Your task to perform on an android device: Go to Android settings Image 0: 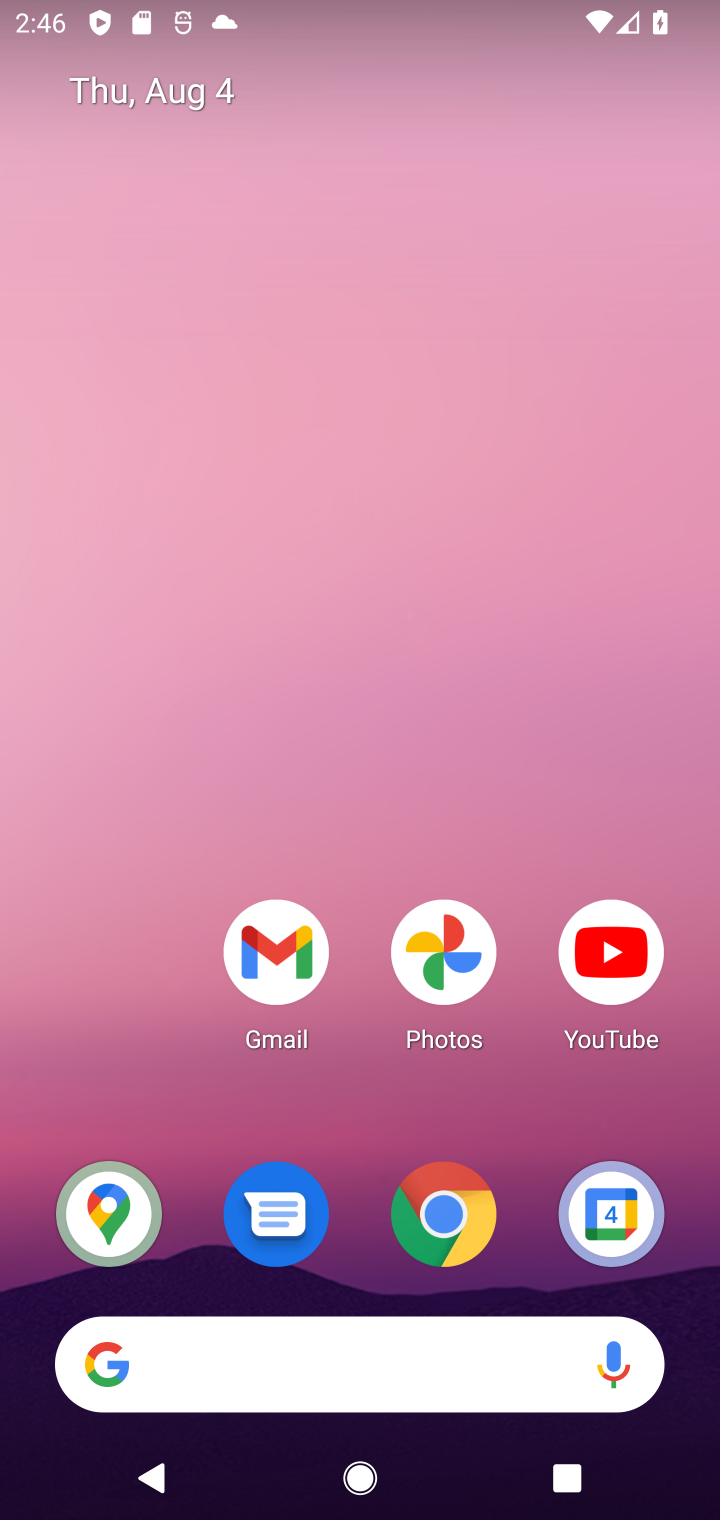
Step 0: drag from (196, 1085) to (98, 120)
Your task to perform on an android device: Go to Android settings Image 1: 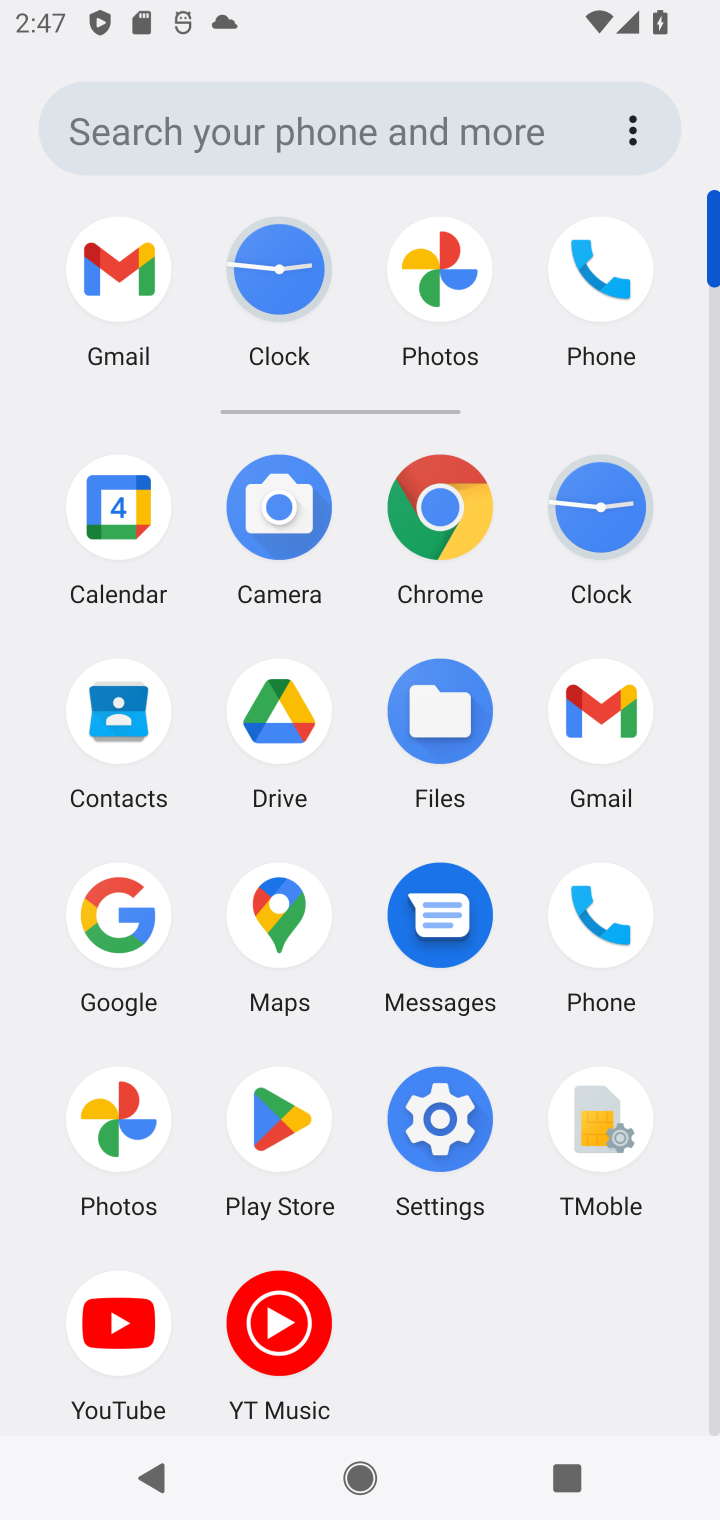
Step 1: click (432, 1138)
Your task to perform on an android device: Go to Android settings Image 2: 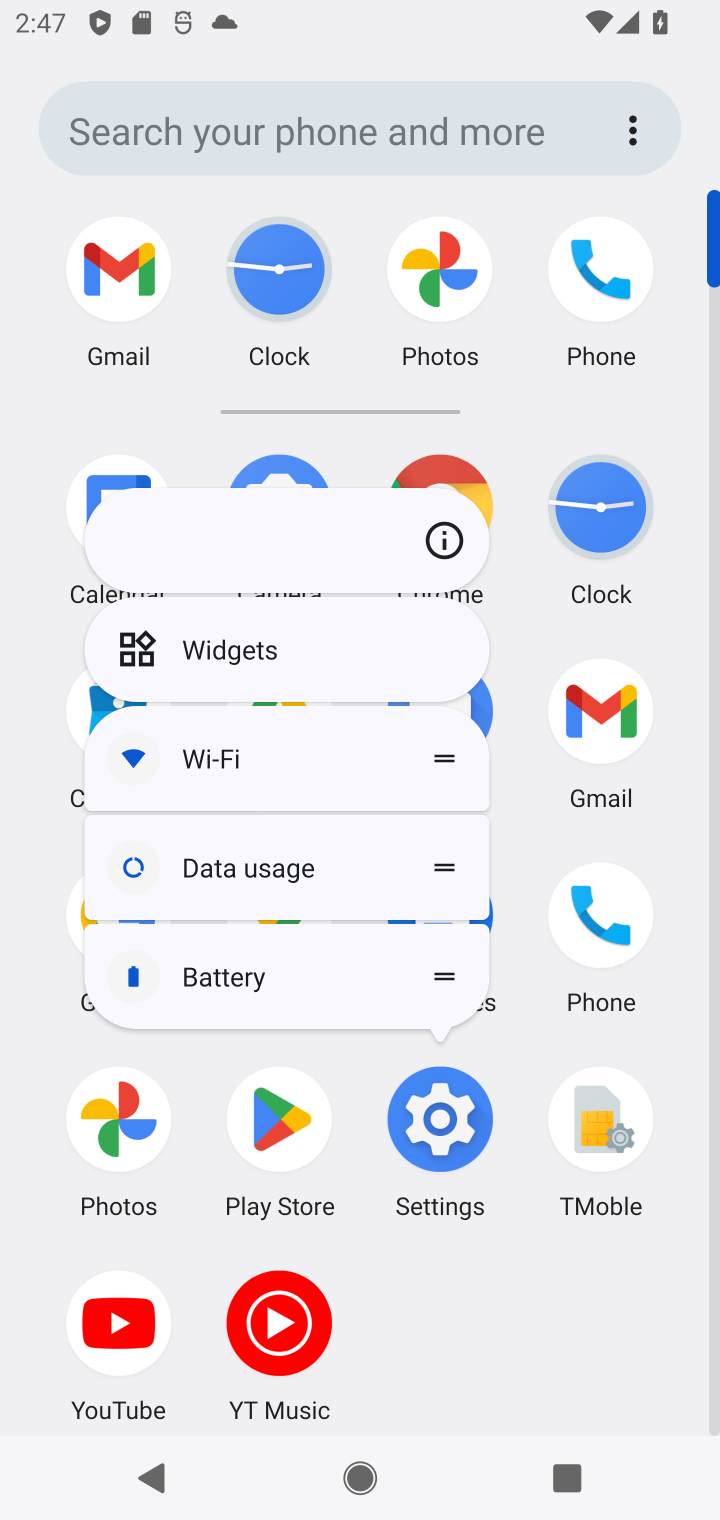
Step 2: click (432, 1138)
Your task to perform on an android device: Go to Android settings Image 3: 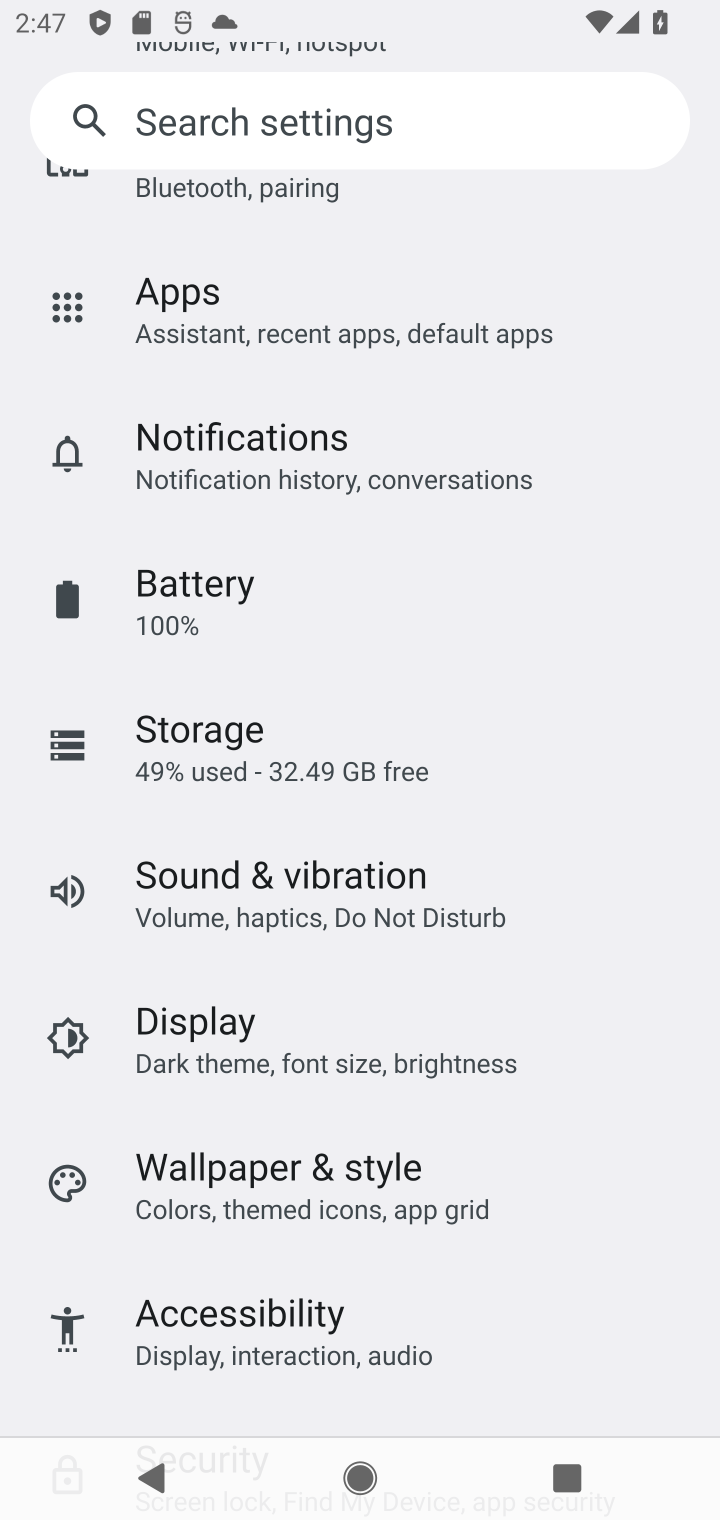
Step 3: task complete